Your task to perform on an android device: Open Google Image 0: 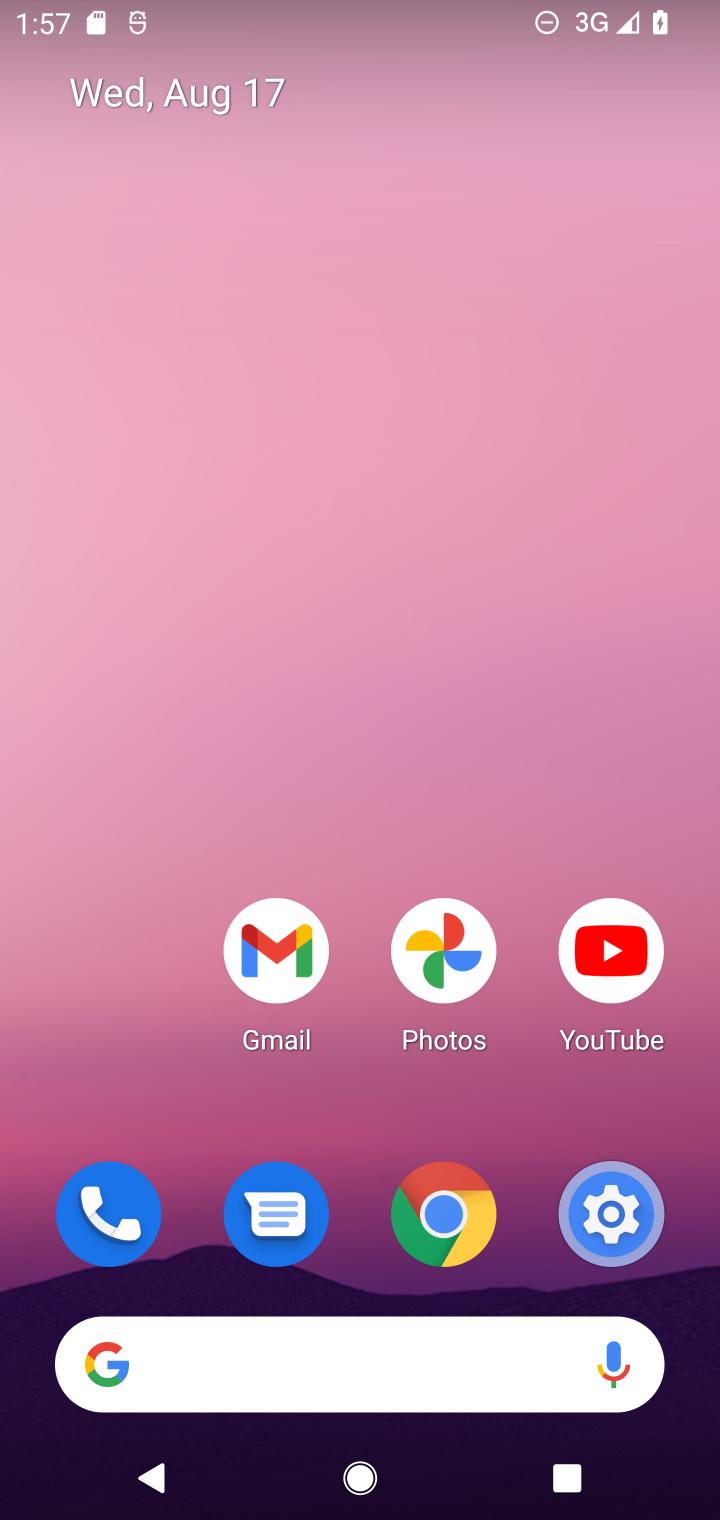
Step 0: press home button
Your task to perform on an android device: Open Google Image 1: 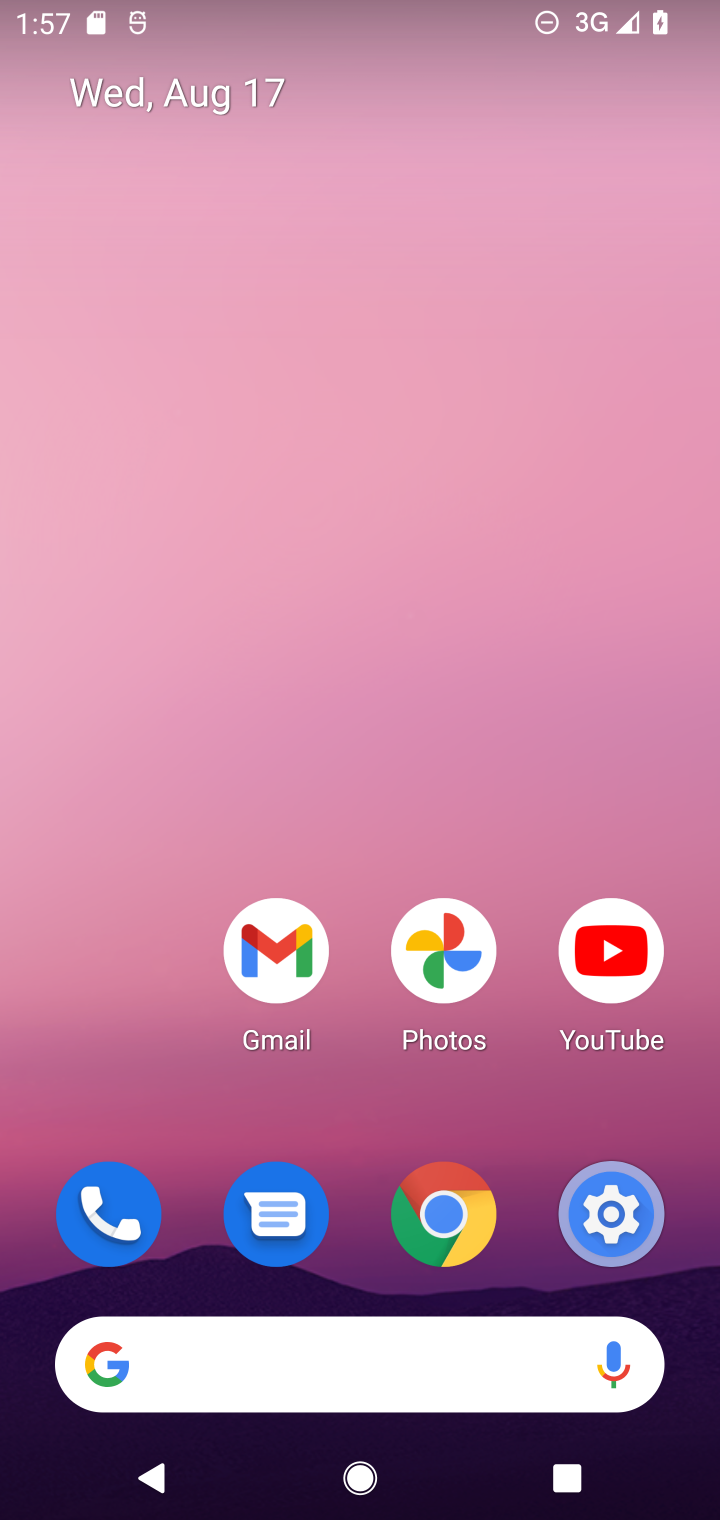
Step 1: drag from (336, 1118) to (319, 261)
Your task to perform on an android device: Open Google Image 2: 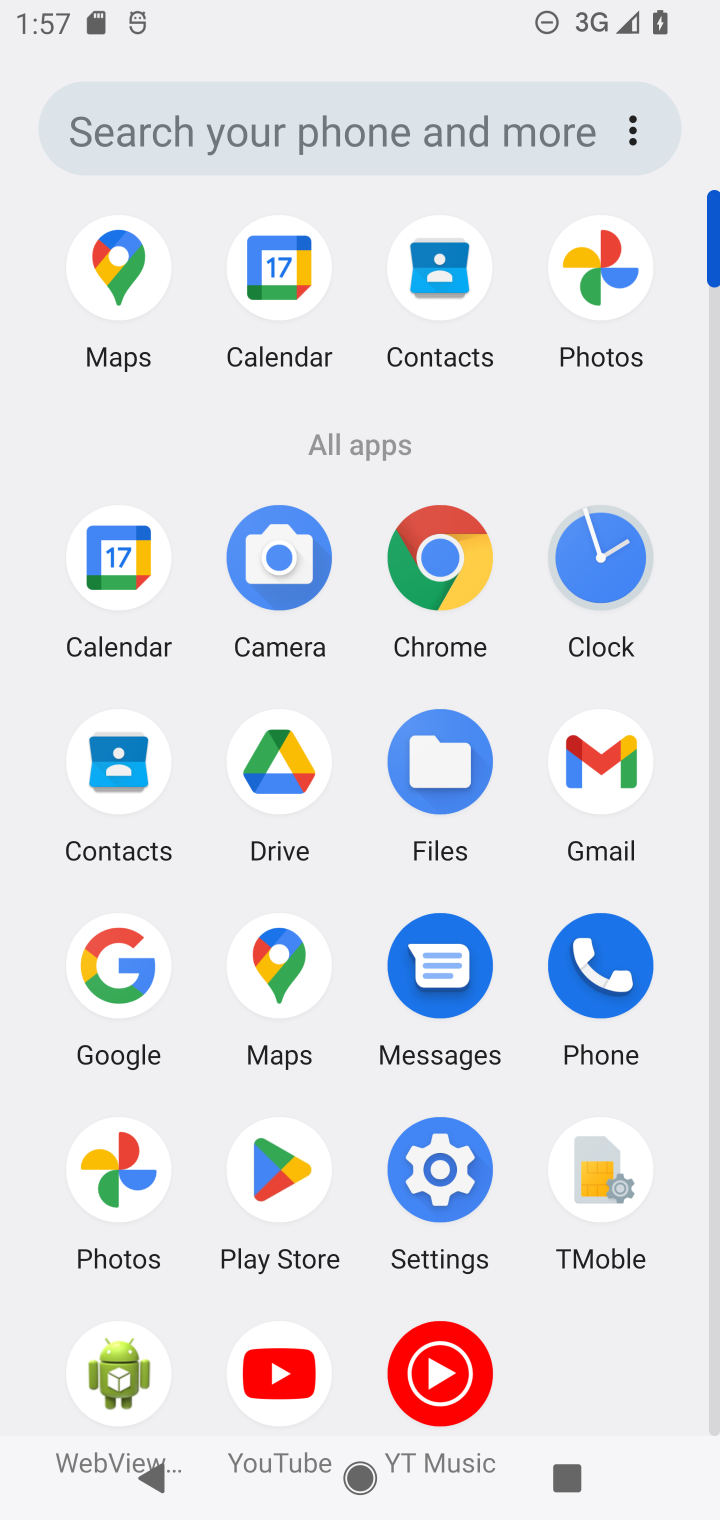
Step 2: click (111, 957)
Your task to perform on an android device: Open Google Image 3: 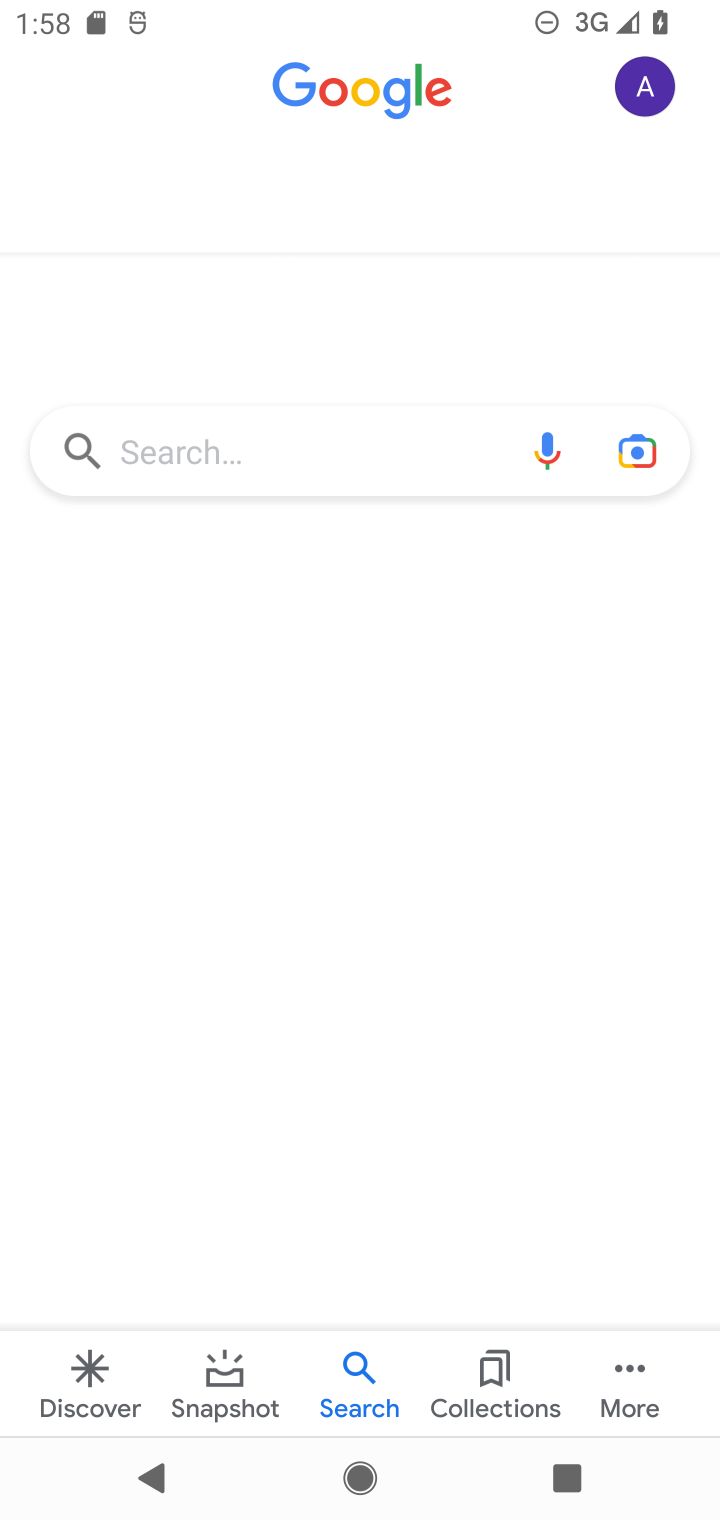
Step 3: task complete